Your task to perform on an android device: turn off javascript in the chrome app Image 0: 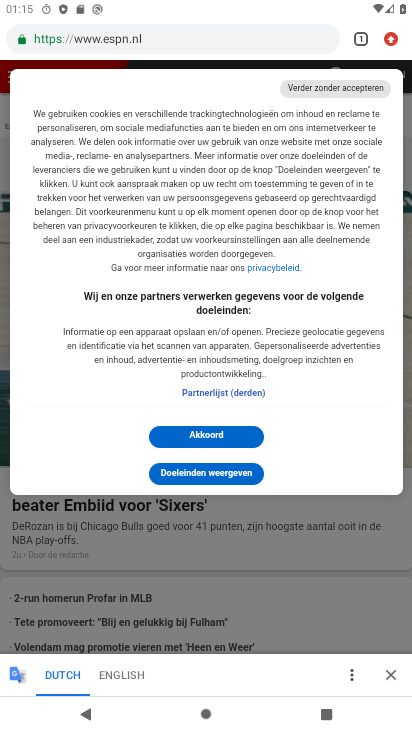
Step 0: click (393, 36)
Your task to perform on an android device: turn off javascript in the chrome app Image 1: 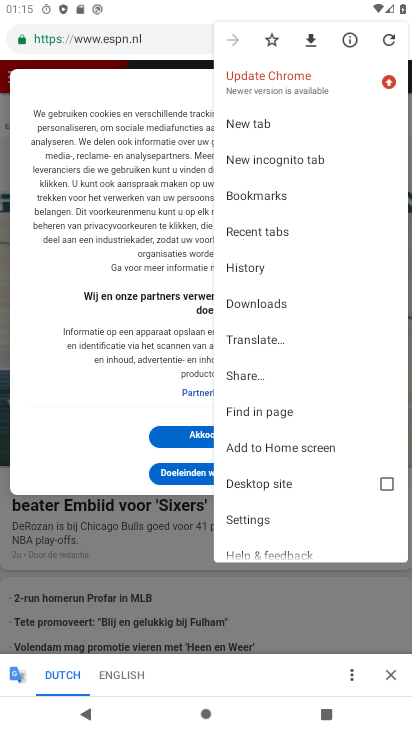
Step 1: click (258, 517)
Your task to perform on an android device: turn off javascript in the chrome app Image 2: 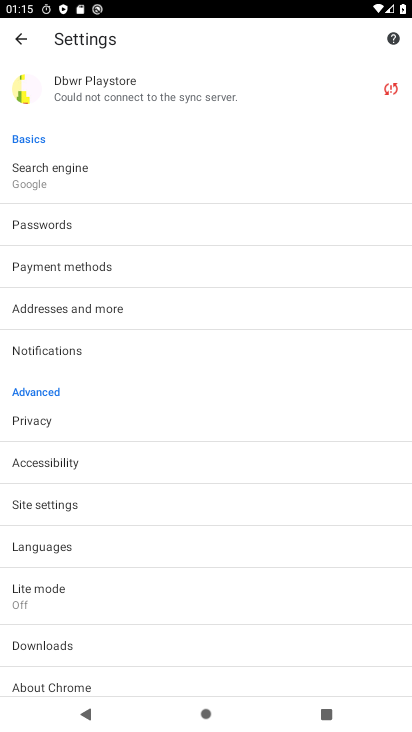
Step 2: click (65, 498)
Your task to perform on an android device: turn off javascript in the chrome app Image 3: 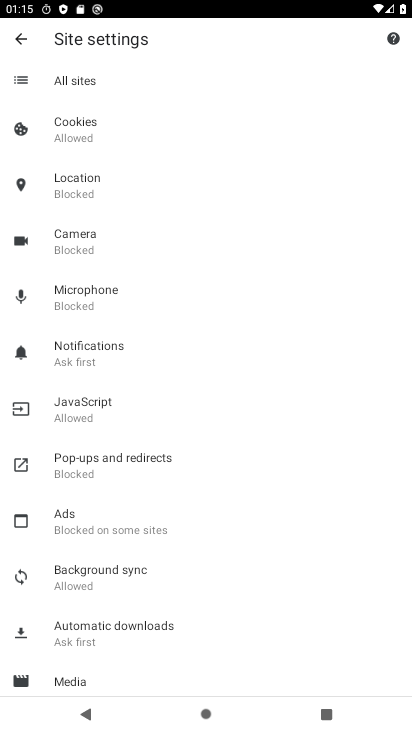
Step 3: click (98, 406)
Your task to perform on an android device: turn off javascript in the chrome app Image 4: 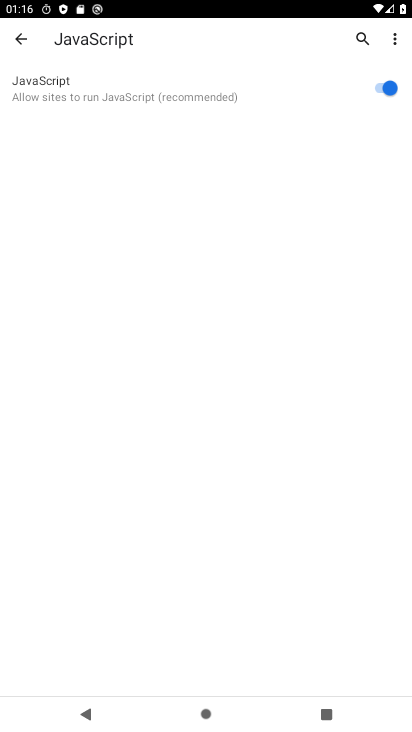
Step 4: click (372, 84)
Your task to perform on an android device: turn off javascript in the chrome app Image 5: 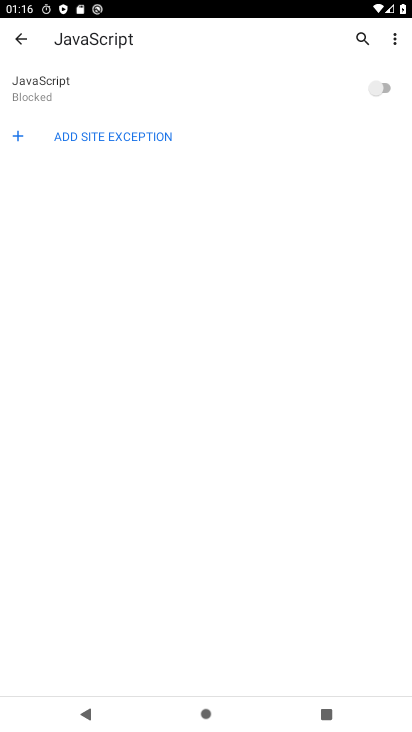
Step 5: task complete